Your task to perform on an android device: Open Google Image 0: 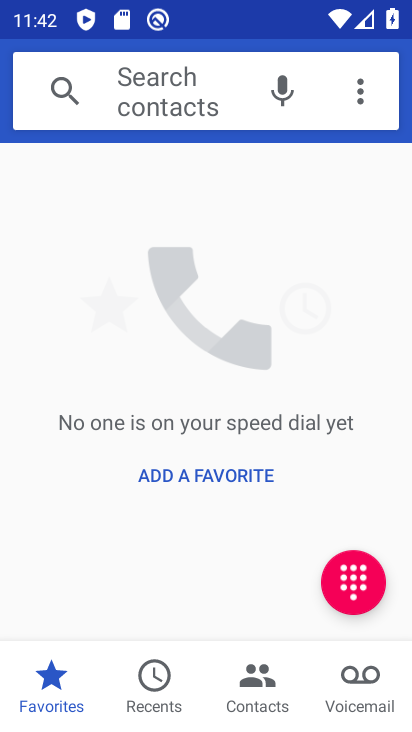
Step 0: press home button
Your task to perform on an android device: Open Google Image 1: 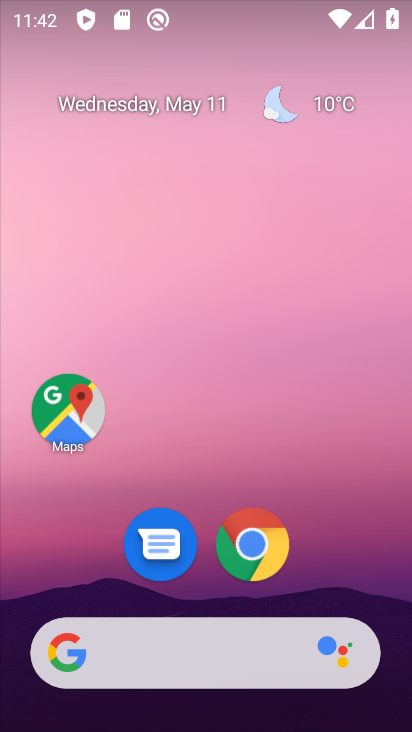
Step 1: drag from (173, 634) to (152, 92)
Your task to perform on an android device: Open Google Image 2: 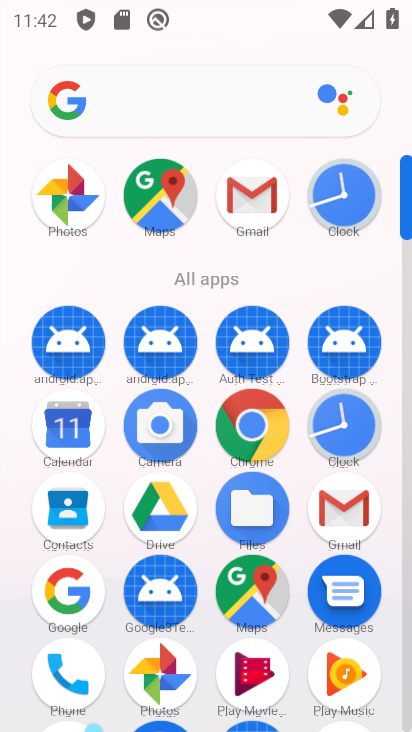
Step 2: click (73, 596)
Your task to perform on an android device: Open Google Image 3: 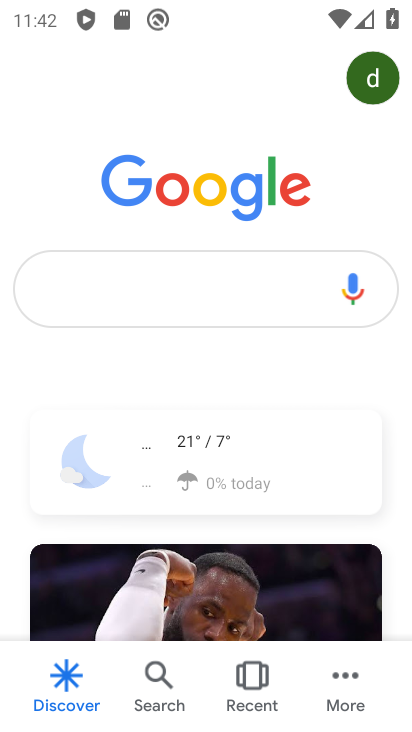
Step 3: task complete